Your task to perform on an android device: Find coffee shops on Maps Image 0: 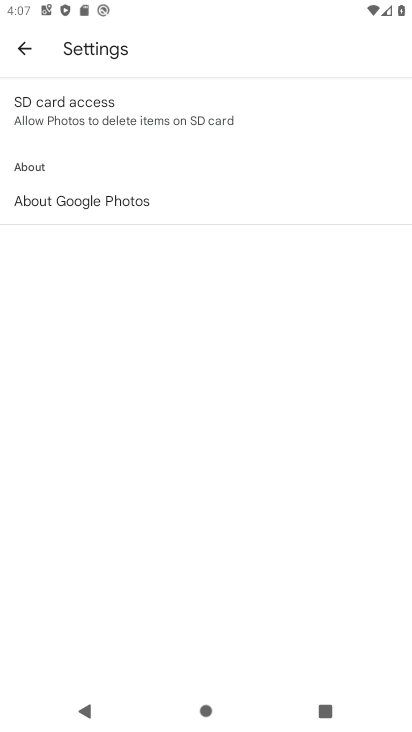
Step 0: press home button
Your task to perform on an android device: Find coffee shops on Maps Image 1: 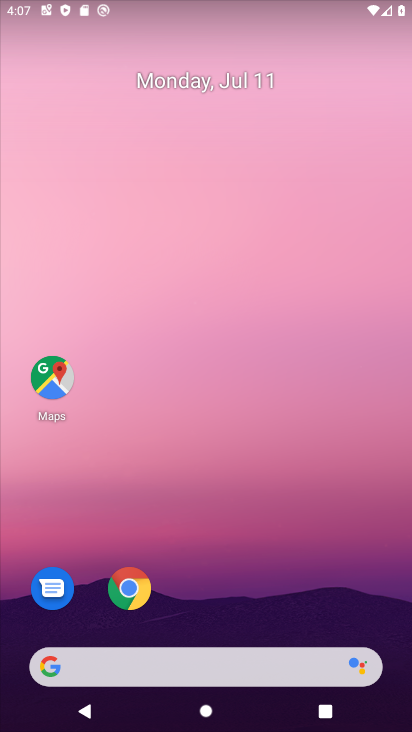
Step 1: drag from (338, 598) to (336, 207)
Your task to perform on an android device: Find coffee shops on Maps Image 2: 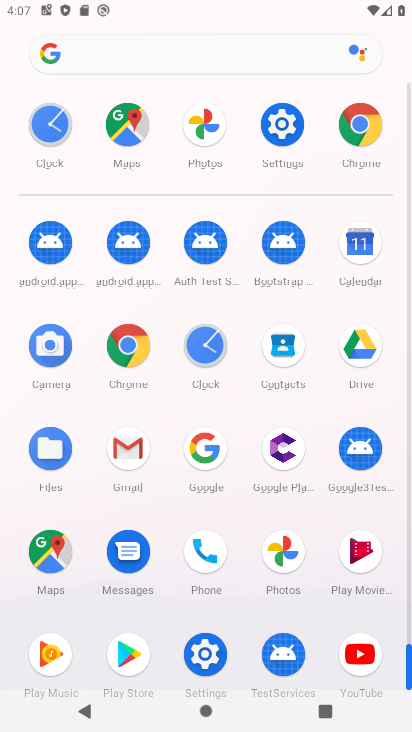
Step 2: click (56, 546)
Your task to perform on an android device: Find coffee shops on Maps Image 3: 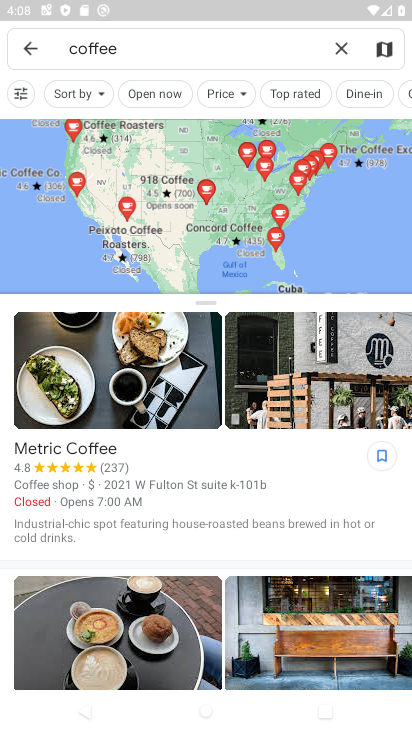
Step 3: task complete